Your task to perform on an android device: Go to calendar. Show me events next week Image 0: 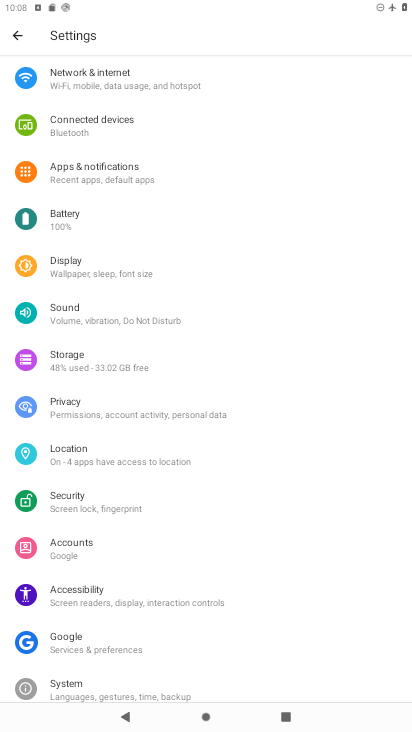
Step 0: press home button
Your task to perform on an android device: Go to calendar. Show me events next week Image 1: 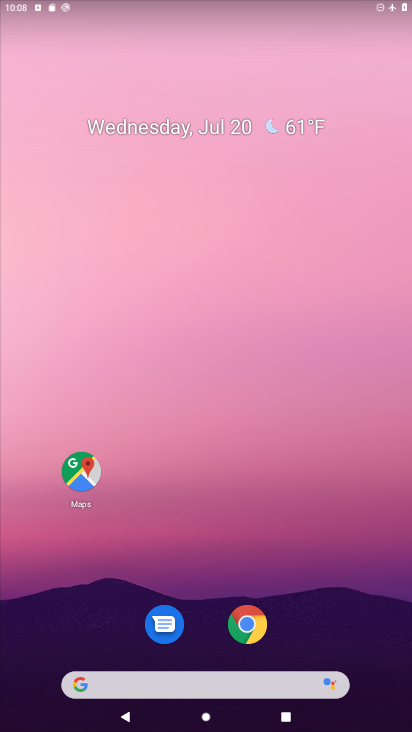
Step 1: drag from (195, 589) to (203, 190)
Your task to perform on an android device: Go to calendar. Show me events next week Image 2: 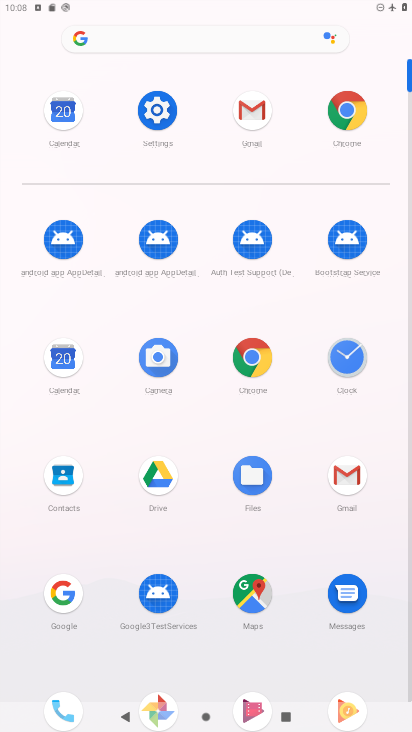
Step 2: click (63, 369)
Your task to perform on an android device: Go to calendar. Show me events next week Image 3: 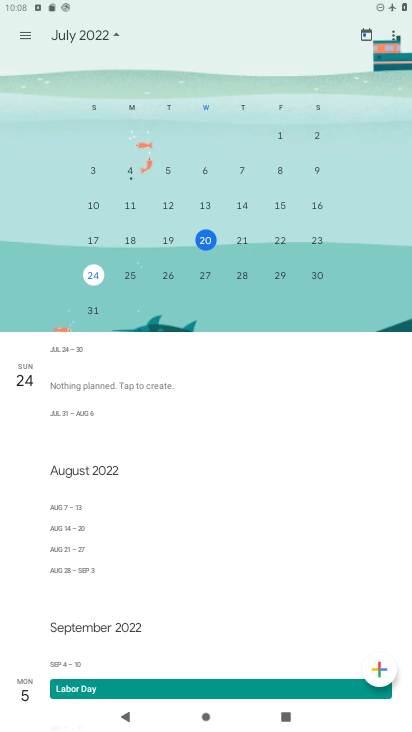
Step 3: click (294, 277)
Your task to perform on an android device: Go to calendar. Show me events next week Image 4: 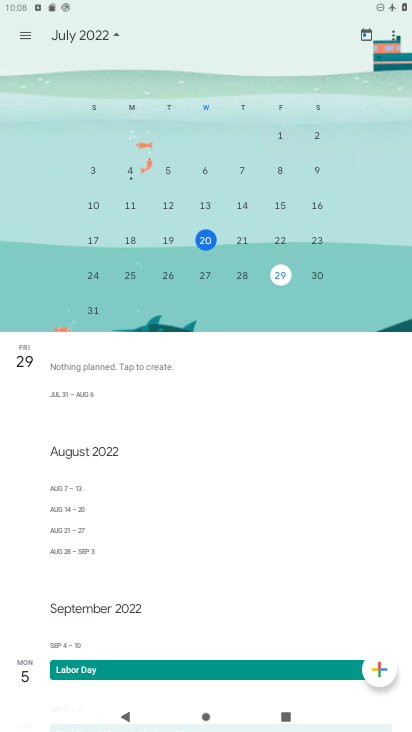
Step 4: click (102, 279)
Your task to perform on an android device: Go to calendar. Show me events next week Image 5: 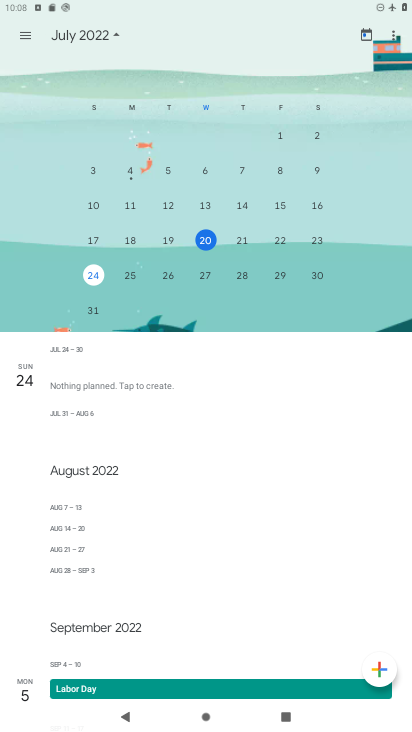
Step 5: task complete